Your task to perform on an android device: Go to Google Image 0: 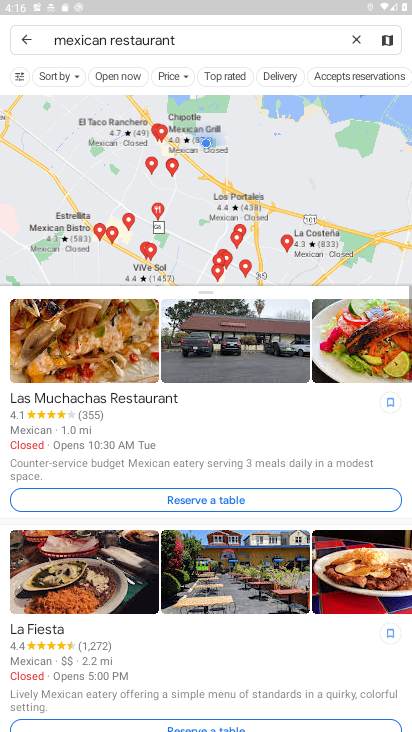
Step 0: press home button
Your task to perform on an android device: Go to Google Image 1: 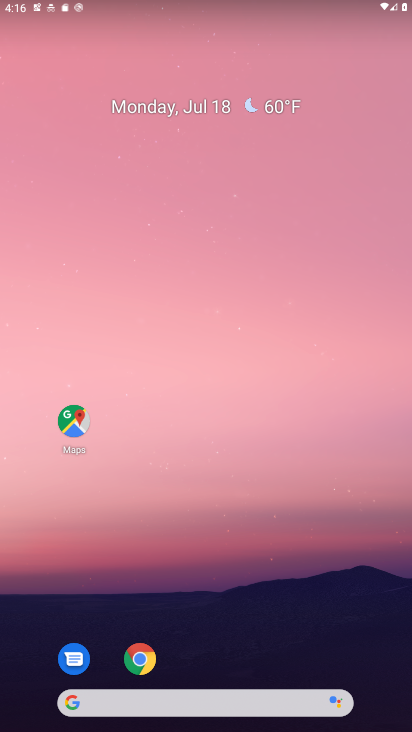
Step 1: drag from (262, 692) to (295, 121)
Your task to perform on an android device: Go to Google Image 2: 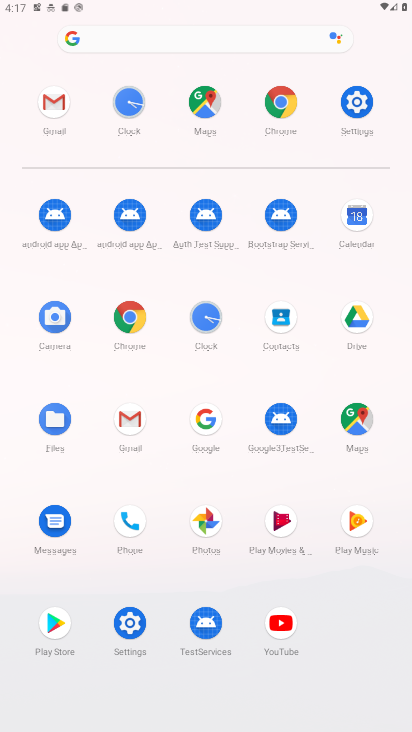
Step 2: click (217, 417)
Your task to perform on an android device: Go to Google Image 3: 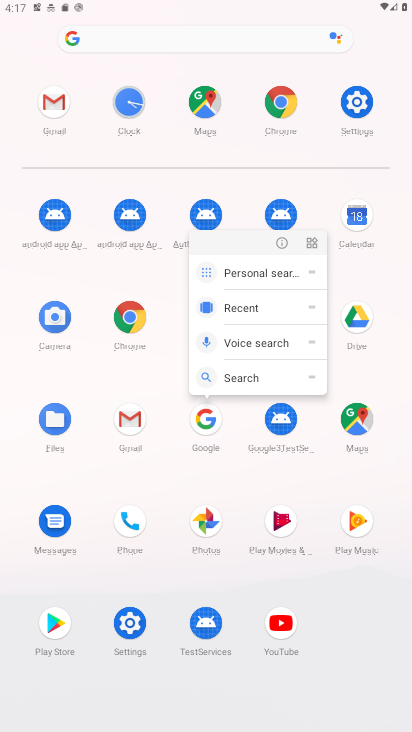
Step 3: click (200, 419)
Your task to perform on an android device: Go to Google Image 4: 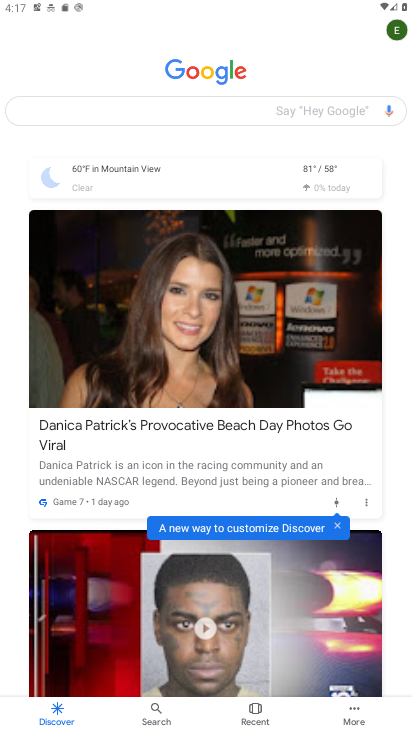
Step 4: task complete